Your task to perform on an android device: Search for "razer thresher" on amazon, select the first entry, add it to the cart, then select checkout. Image 0: 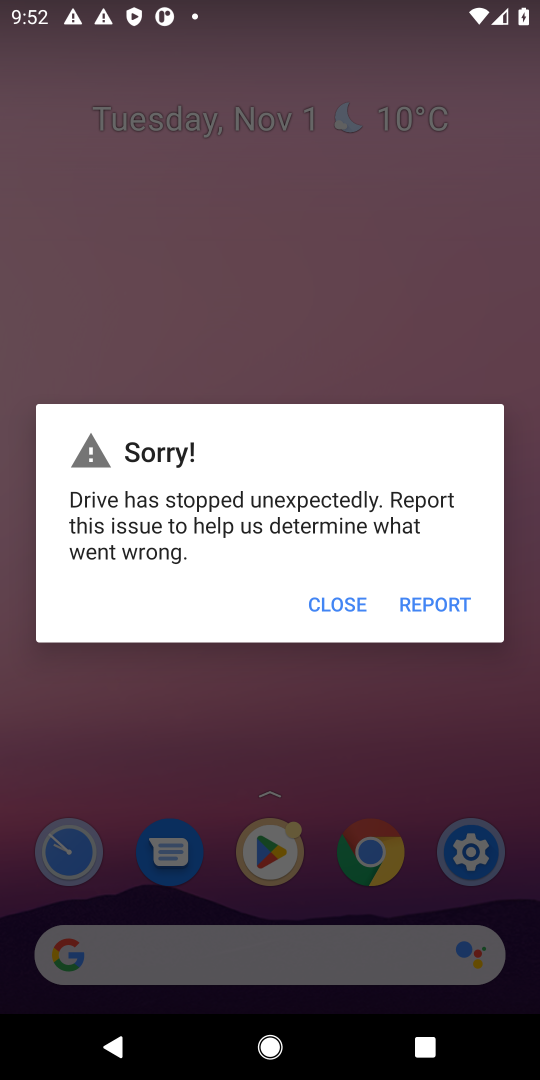
Step 0: press home button
Your task to perform on an android device: Search for "razer thresher" on amazon, select the first entry, add it to the cart, then select checkout. Image 1: 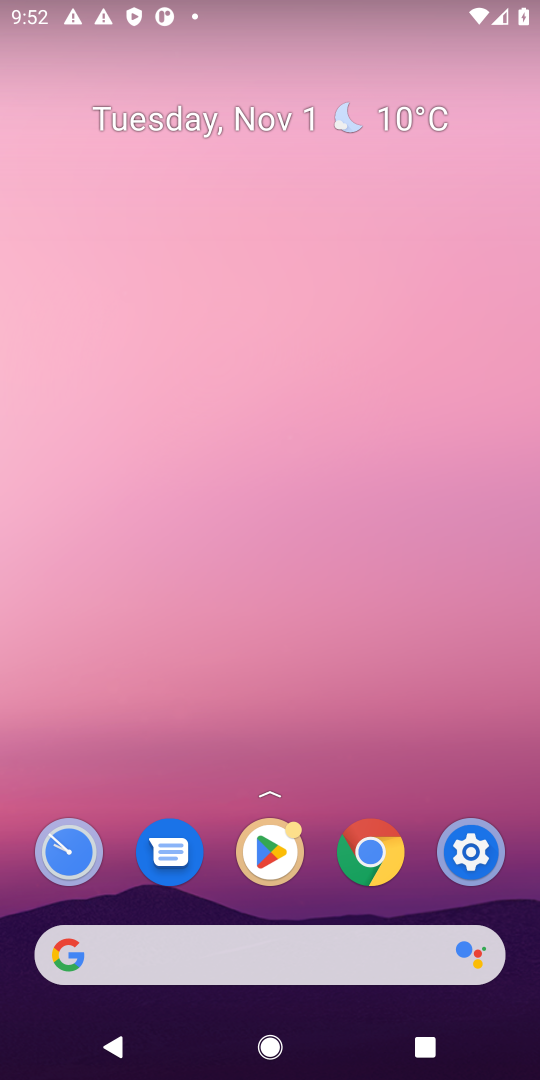
Step 1: click (72, 946)
Your task to perform on an android device: Search for "razer thresher" on amazon, select the first entry, add it to the cart, then select checkout. Image 2: 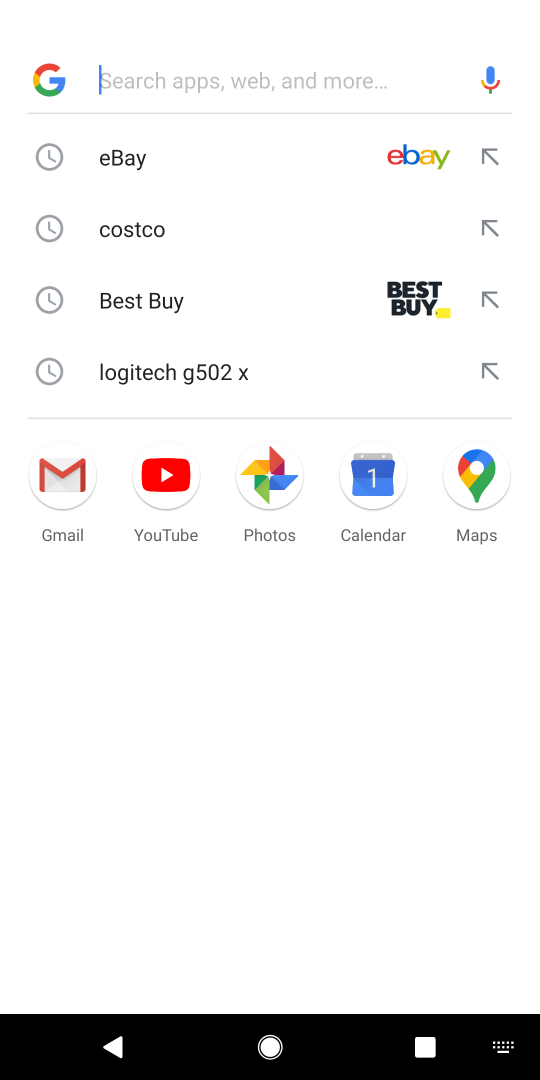
Step 2: type " amazon"
Your task to perform on an android device: Search for "razer thresher" on amazon, select the first entry, add it to the cart, then select checkout. Image 3: 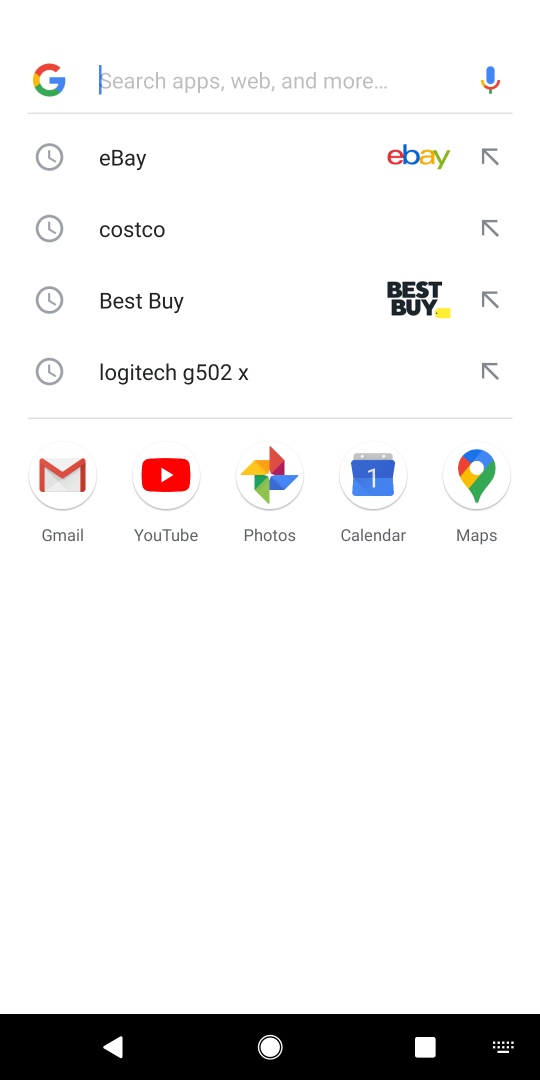
Step 3: click (130, 70)
Your task to perform on an android device: Search for "razer thresher" on amazon, select the first entry, add it to the cart, then select checkout. Image 4: 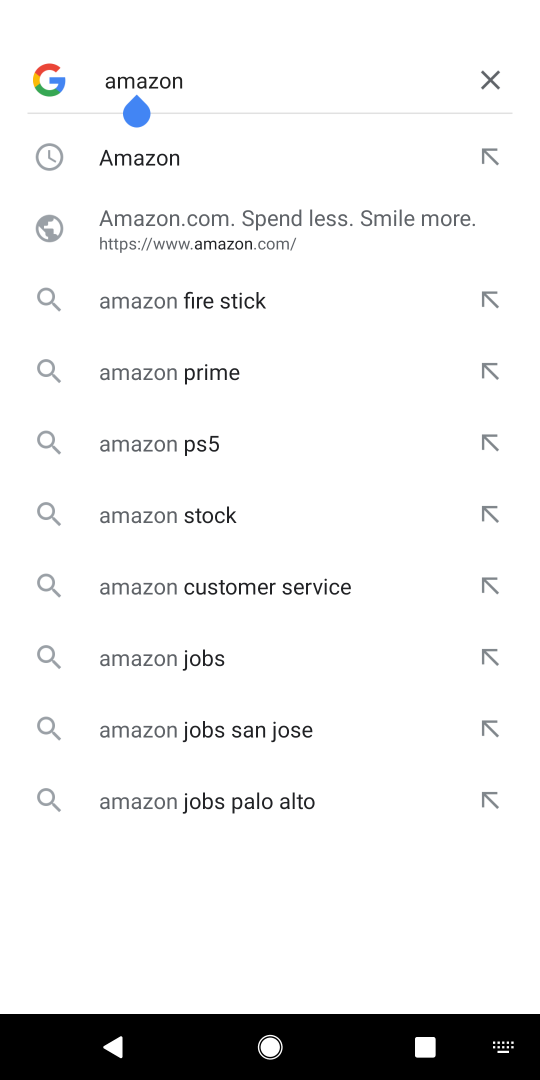
Step 4: press enter
Your task to perform on an android device: Search for "razer thresher" on amazon, select the first entry, add it to the cart, then select checkout. Image 5: 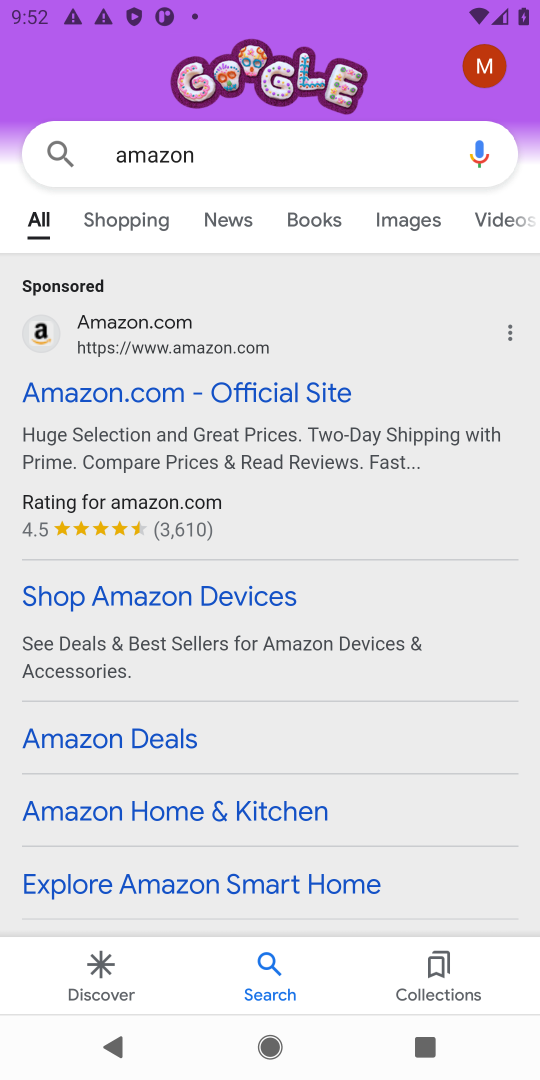
Step 5: click (62, 388)
Your task to perform on an android device: Search for "razer thresher" on amazon, select the first entry, add it to the cart, then select checkout. Image 6: 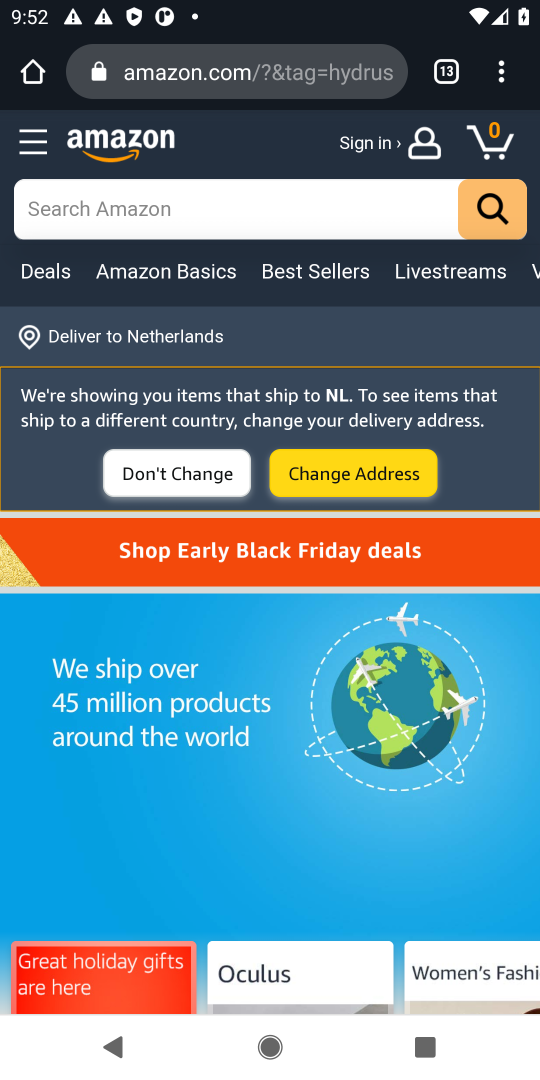
Step 6: click (238, 205)
Your task to perform on an android device: Search for "razer thresher" on amazon, select the first entry, add it to the cart, then select checkout. Image 7: 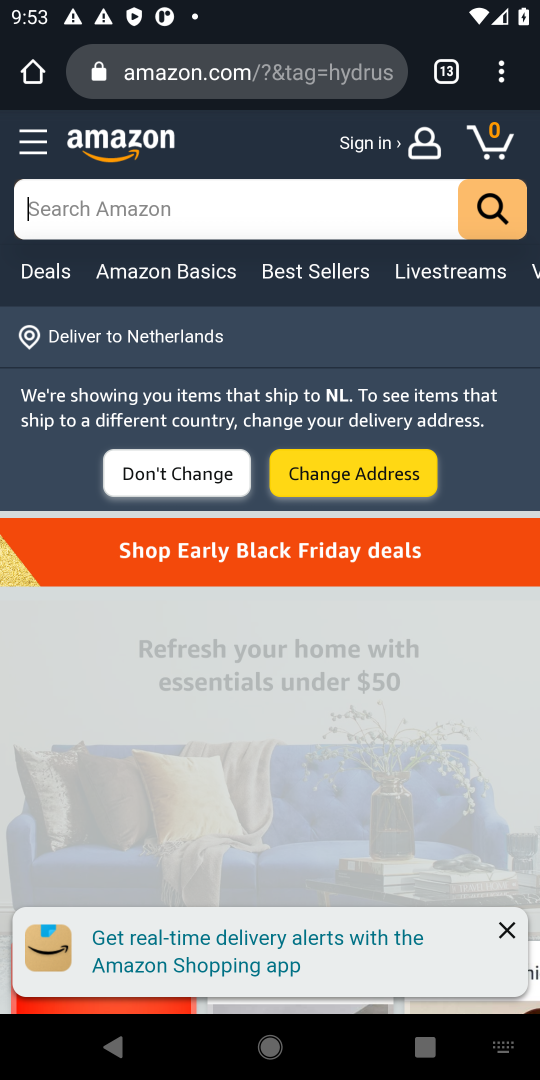
Step 7: type "razer thresher"
Your task to perform on an android device: Search for "razer thresher" on amazon, select the first entry, add it to the cart, then select checkout. Image 8: 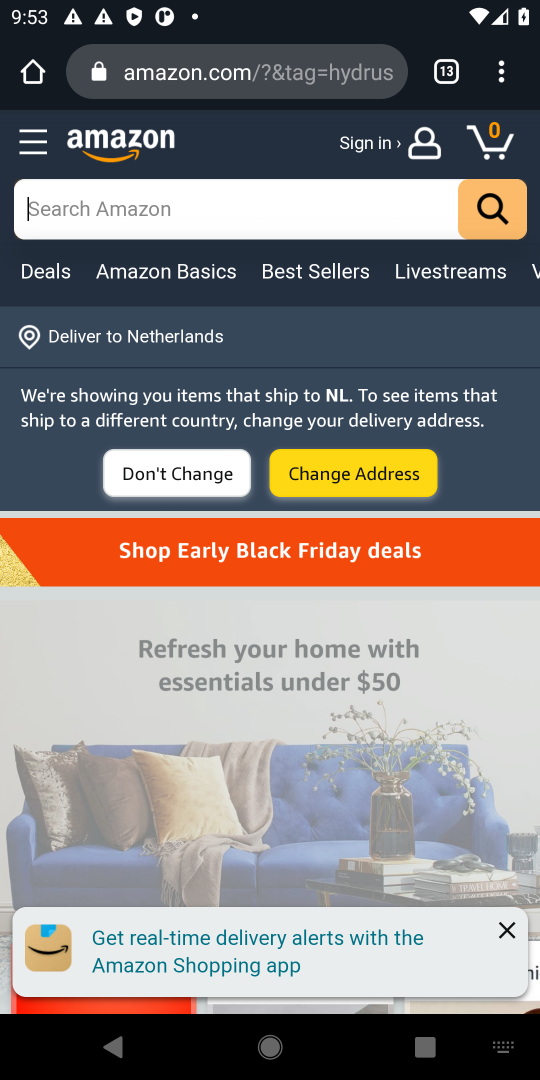
Step 8: click (181, 206)
Your task to perform on an android device: Search for "razer thresher" on amazon, select the first entry, add it to the cart, then select checkout. Image 9: 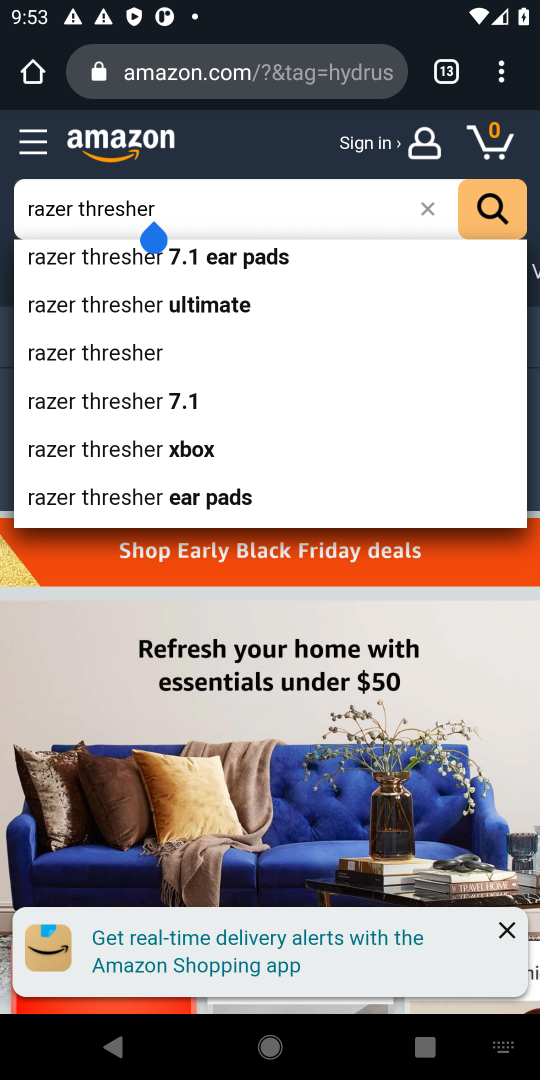
Step 9: press enter
Your task to perform on an android device: Search for "razer thresher" on amazon, select the first entry, add it to the cart, then select checkout. Image 10: 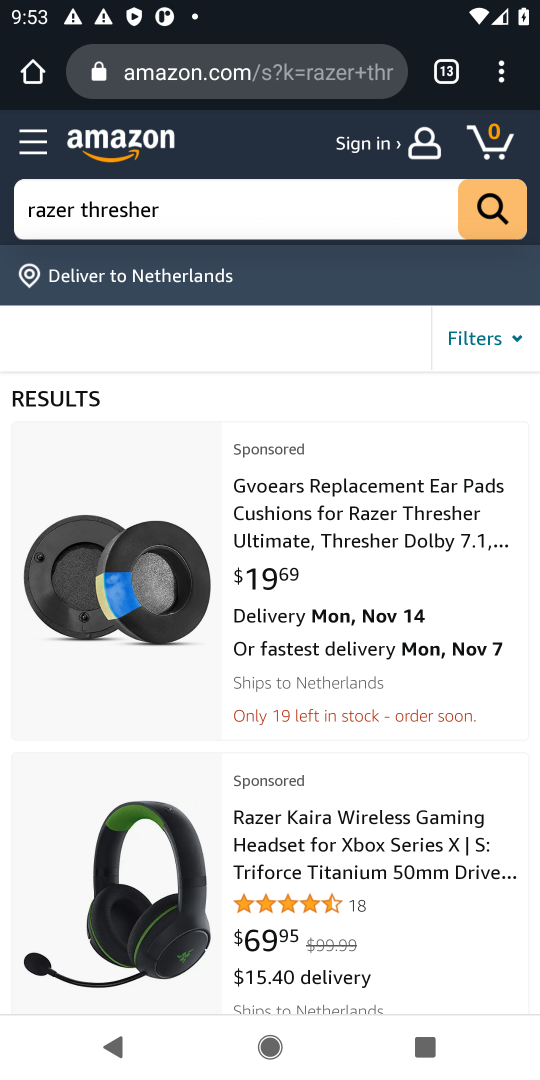
Step 10: drag from (451, 997) to (399, 458)
Your task to perform on an android device: Search for "razer thresher" on amazon, select the first entry, add it to the cart, then select checkout. Image 11: 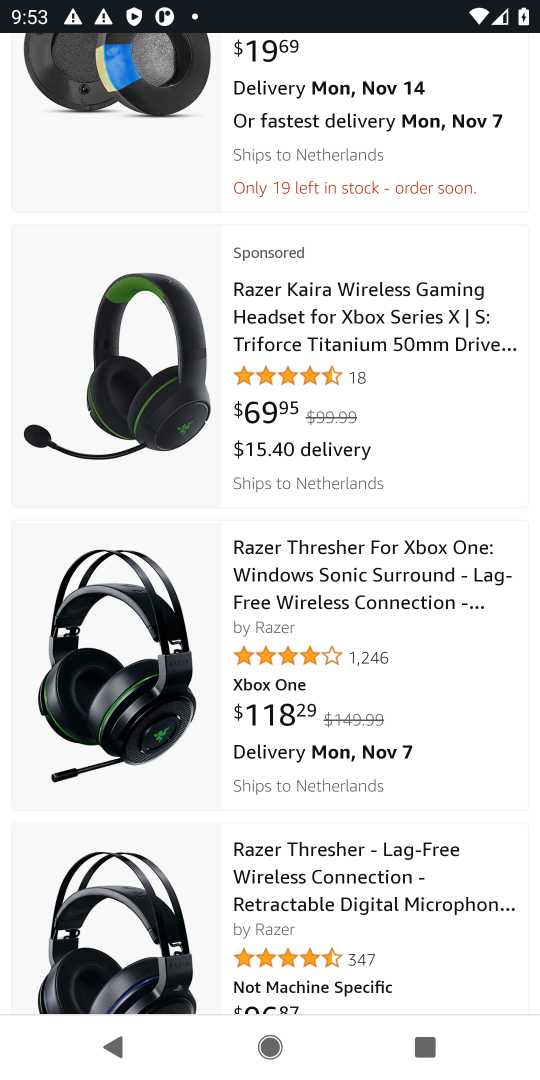
Step 11: click (351, 540)
Your task to perform on an android device: Search for "razer thresher" on amazon, select the first entry, add it to the cart, then select checkout. Image 12: 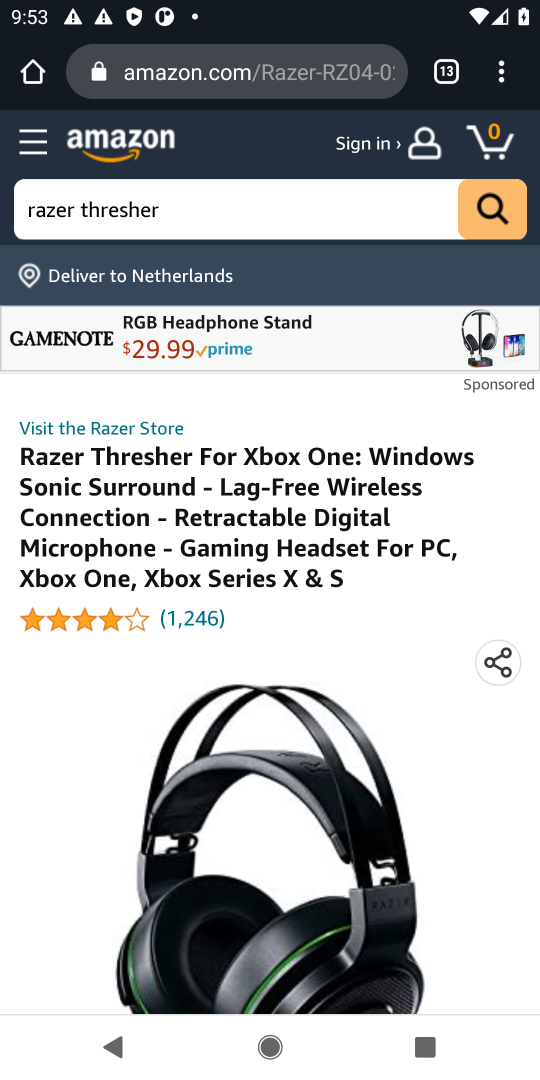
Step 12: drag from (451, 872) to (373, 434)
Your task to perform on an android device: Search for "razer thresher" on amazon, select the first entry, add it to the cart, then select checkout. Image 13: 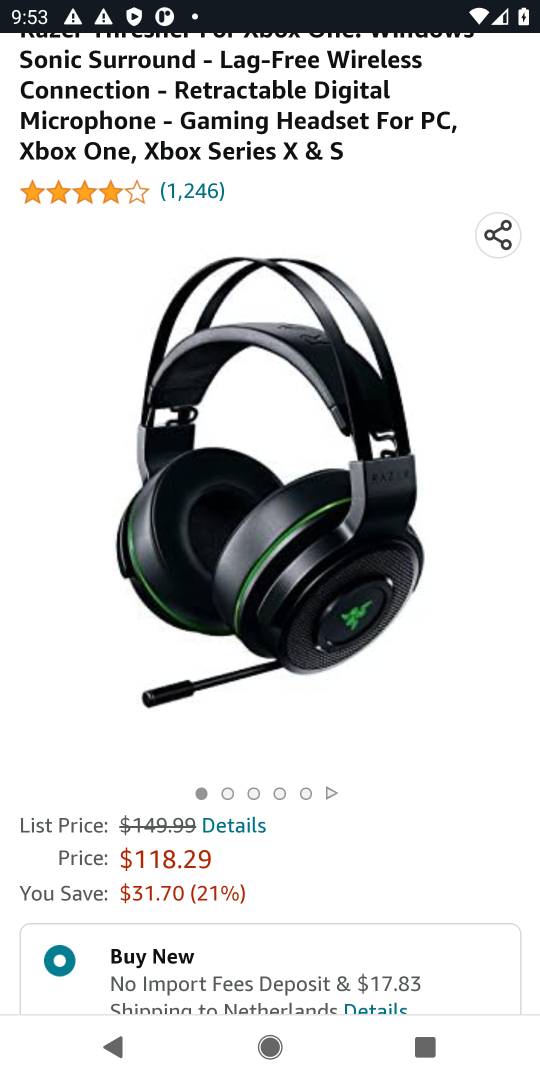
Step 13: drag from (450, 826) to (367, 282)
Your task to perform on an android device: Search for "razer thresher" on amazon, select the first entry, add it to the cart, then select checkout. Image 14: 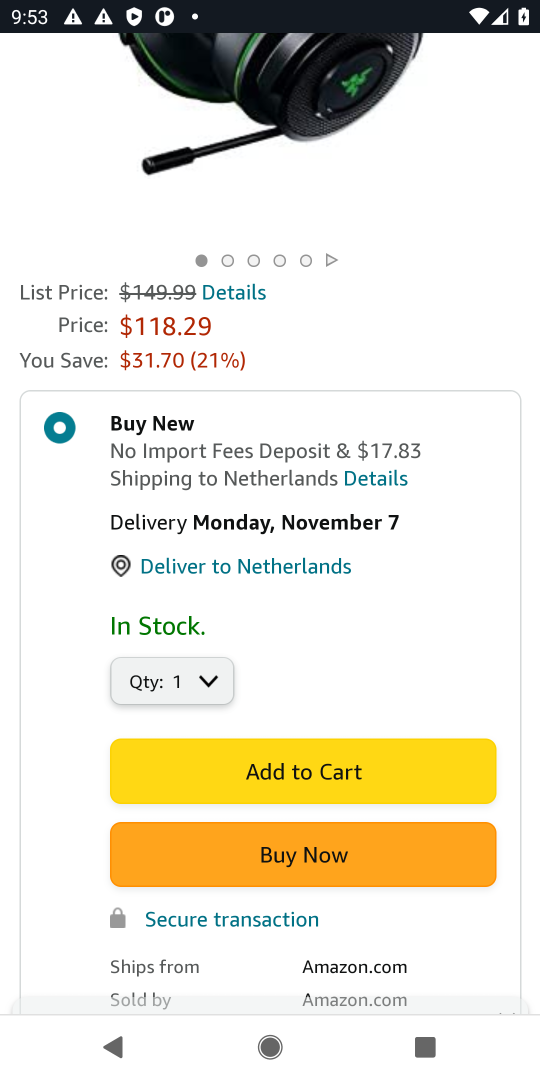
Step 14: click (319, 762)
Your task to perform on an android device: Search for "razer thresher" on amazon, select the first entry, add it to the cart, then select checkout. Image 15: 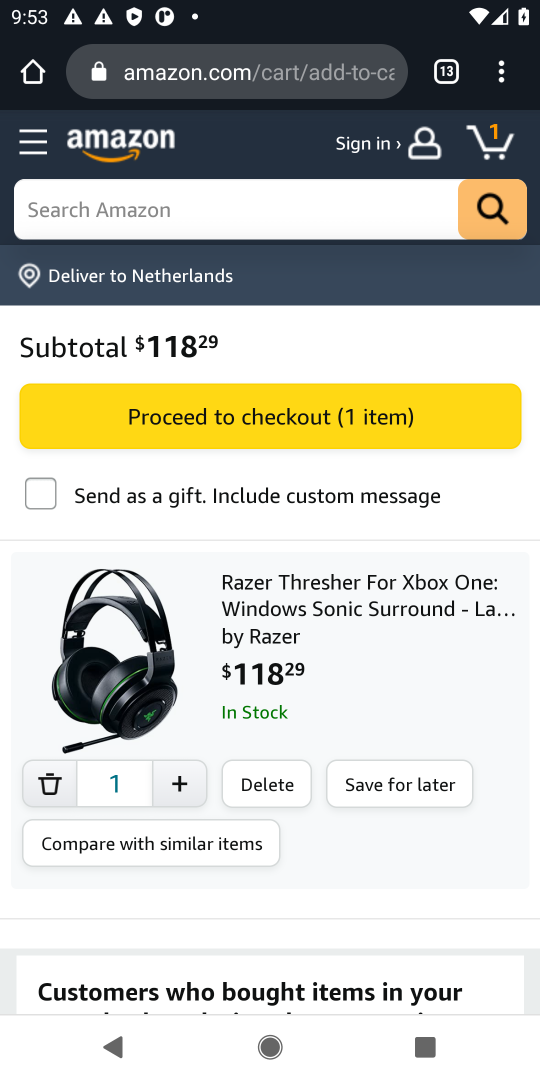
Step 15: click (501, 146)
Your task to perform on an android device: Search for "razer thresher" on amazon, select the first entry, add it to the cart, then select checkout. Image 16: 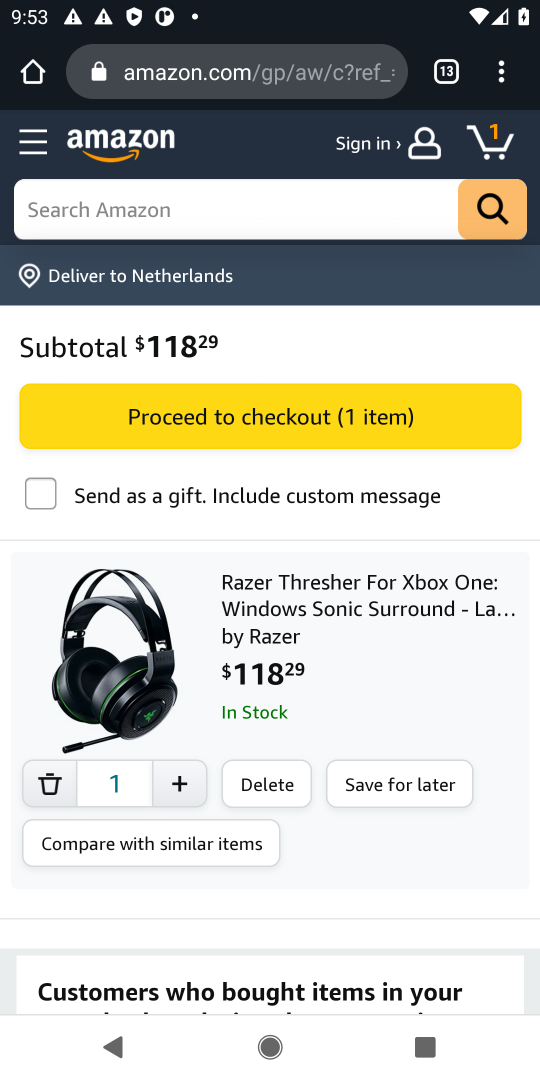
Step 16: click (254, 420)
Your task to perform on an android device: Search for "razer thresher" on amazon, select the first entry, add it to the cart, then select checkout. Image 17: 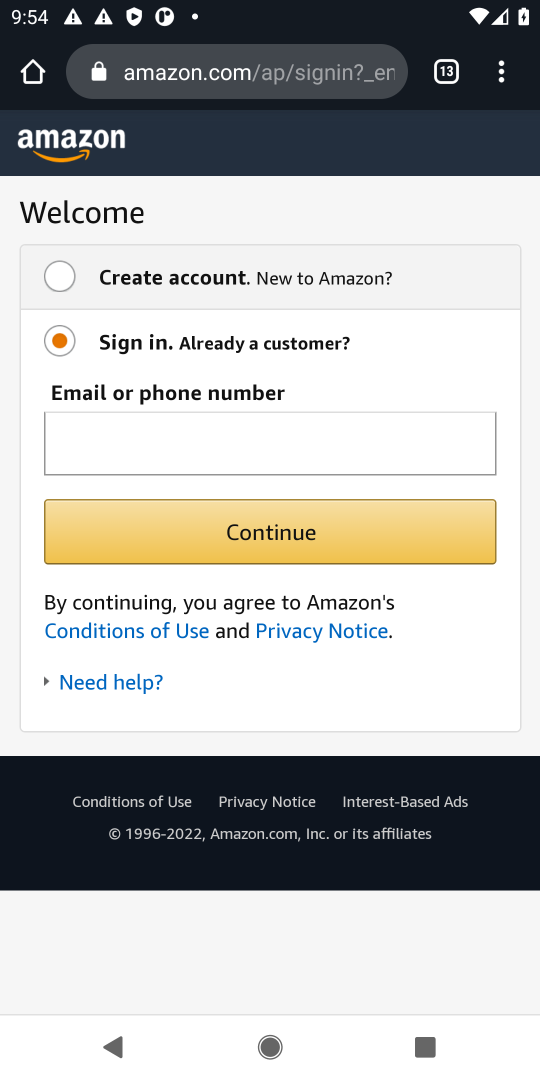
Step 17: task complete